Your task to perform on an android device: uninstall "WhatsApp Messenger" Image 0: 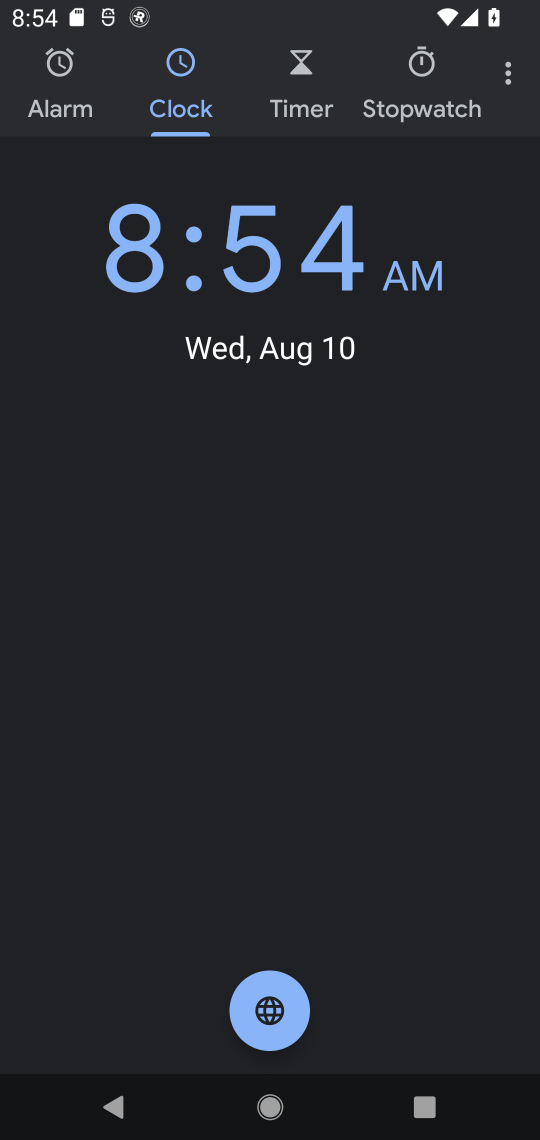
Step 0: press home button
Your task to perform on an android device: uninstall "WhatsApp Messenger" Image 1: 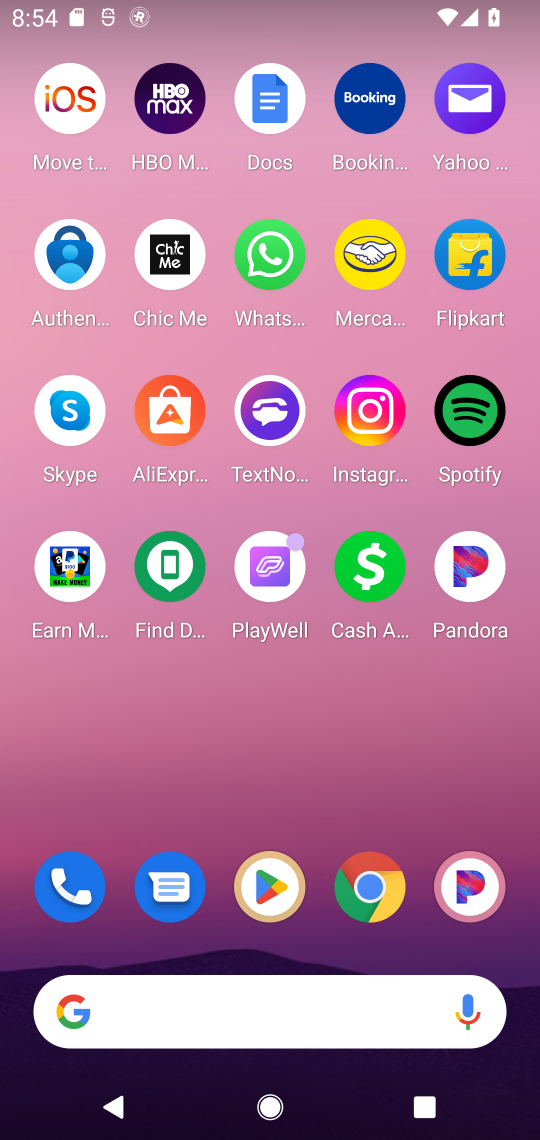
Step 1: click (261, 257)
Your task to perform on an android device: uninstall "WhatsApp Messenger" Image 2: 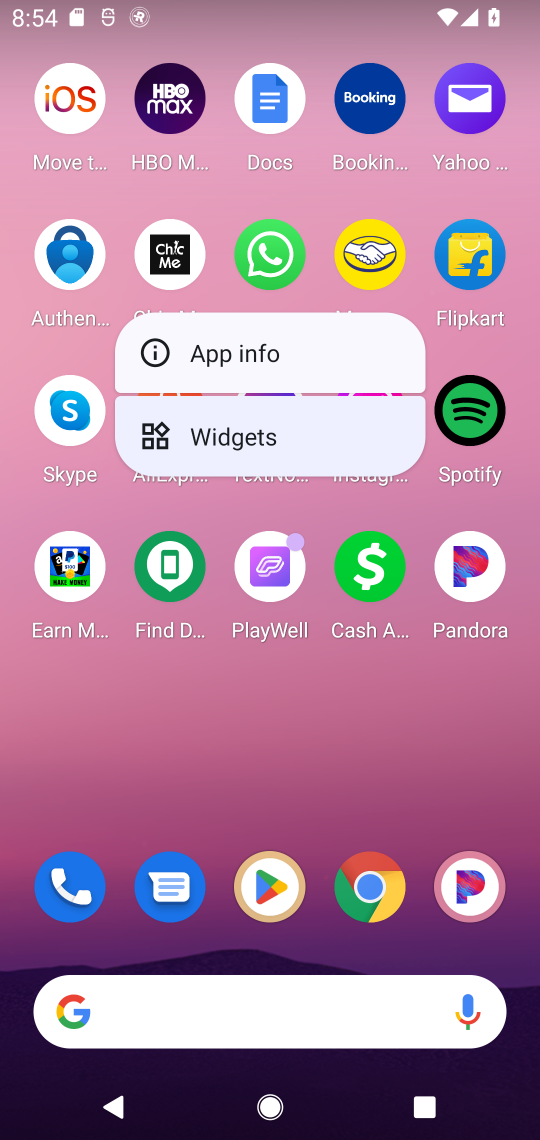
Step 2: click (244, 334)
Your task to perform on an android device: uninstall "WhatsApp Messenger" Image 3: 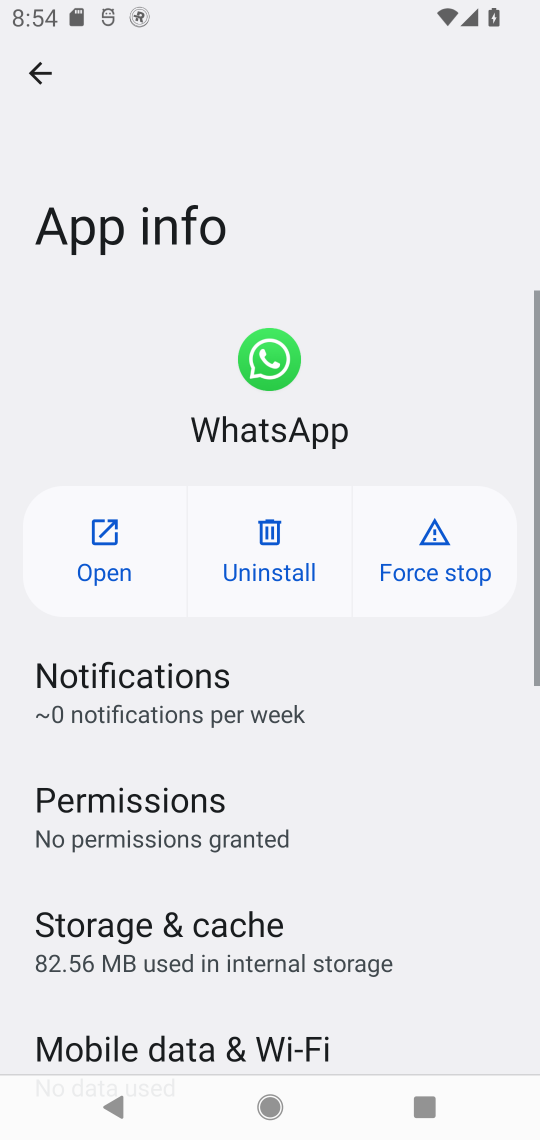
Step 3: click (288, 535)
Your task to perform on an android device: uninstall "WhatsApp Messenger" Image 4: 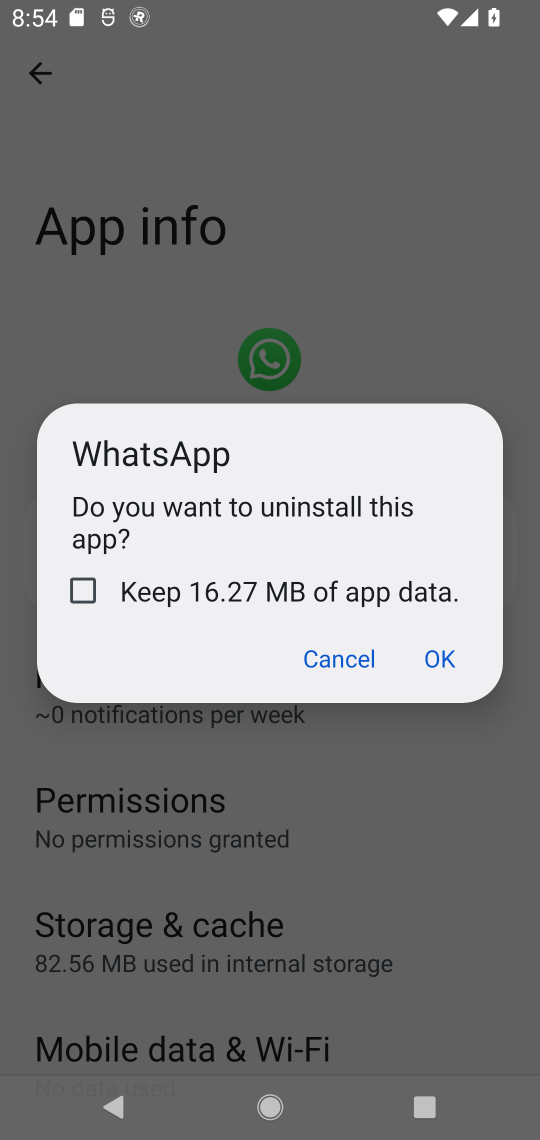
Step 4: click (266, 573)
Your task to perform on an android device: uninstall "WhatsApp Messenger" Image 5: 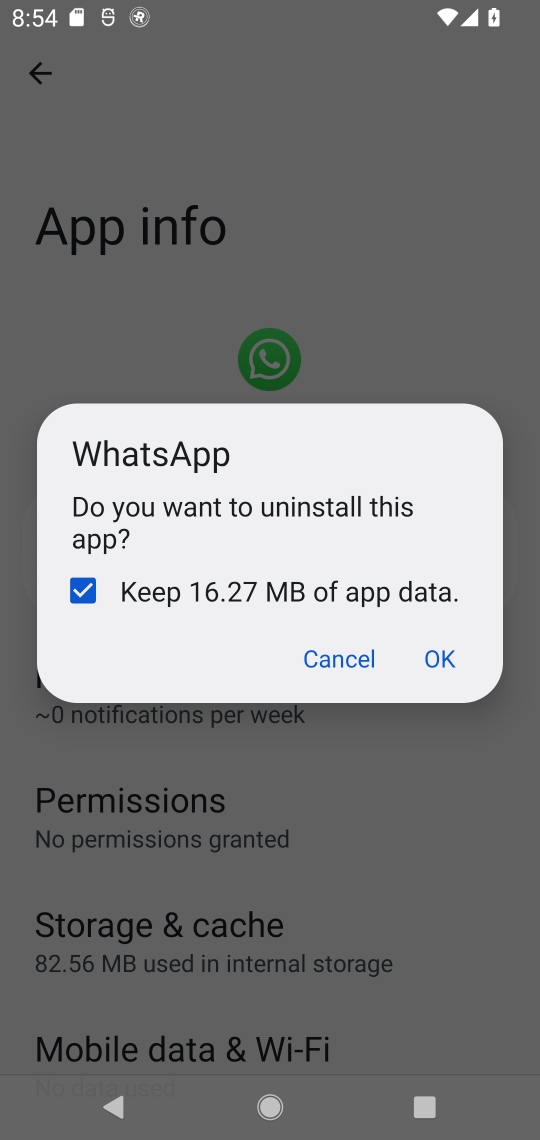
Step 5: click (453, 679)
Your task to perform on an android device: uninstall "WhatsApp Messenger" Image 6: 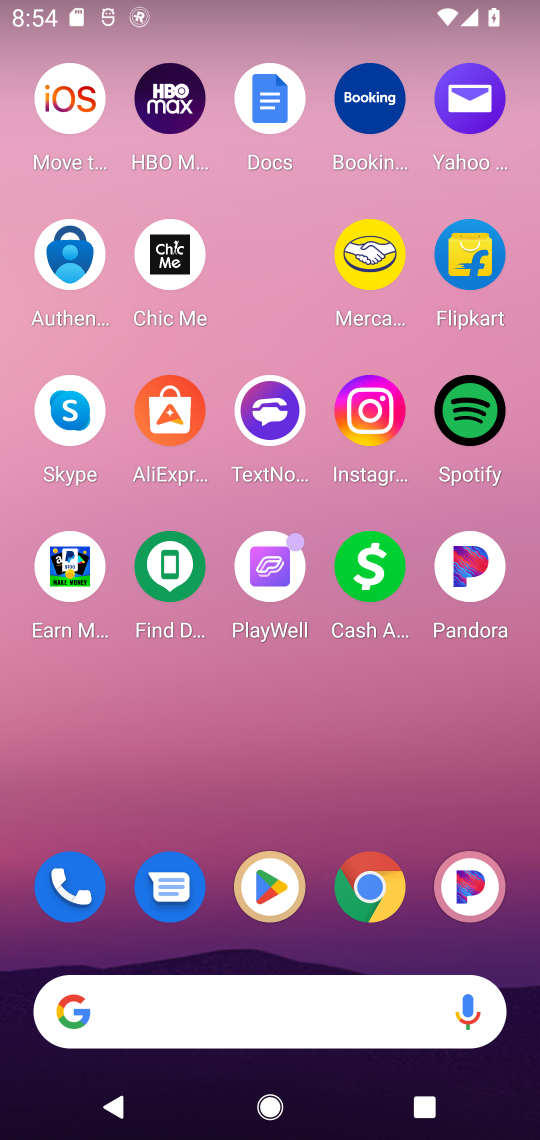
Step 6: click (276, 901)
Your task to perform on an android device: uninstall "WhatsApp Messenger" Image 7: 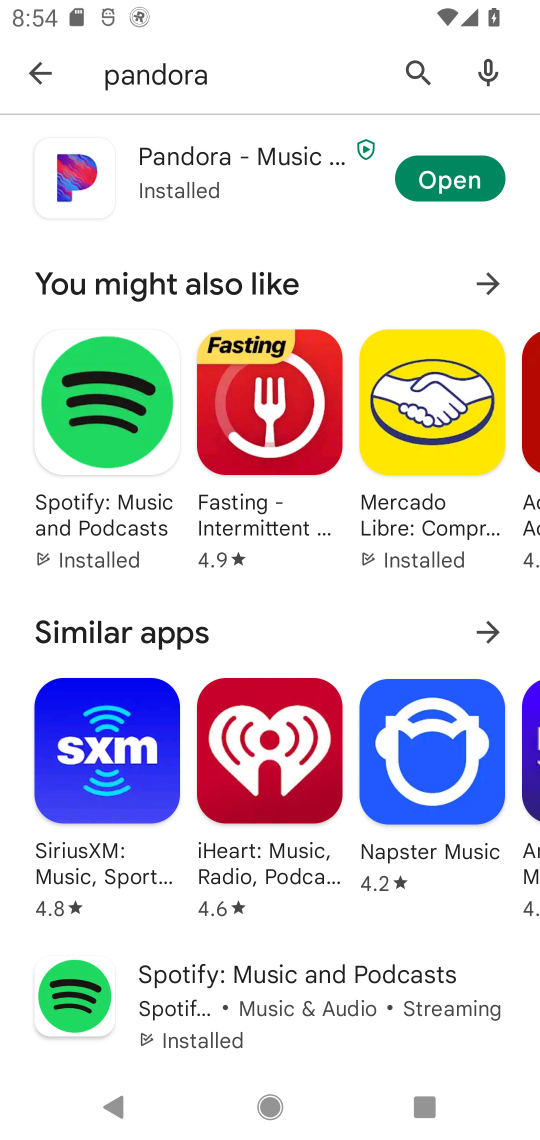
Step 7: press home button
Your task to perform on an android device: uninstall "WhatsApp Messenger" Image 8: 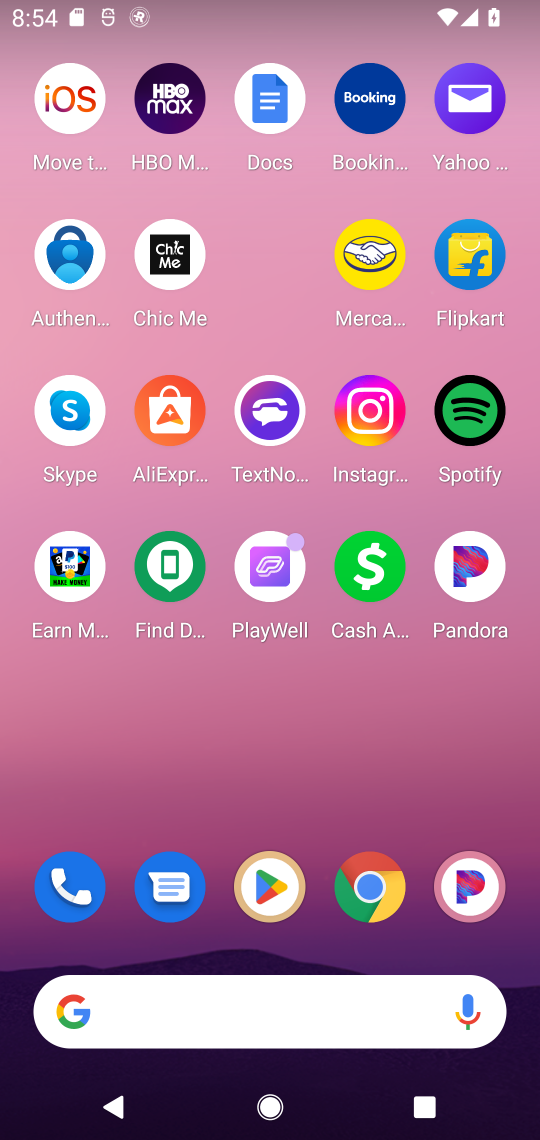
Step 8: drag from (290, 962) to (281, 175)
Your task to perform on an android device: uninstall "WhatsApp Messenger" Image 9: 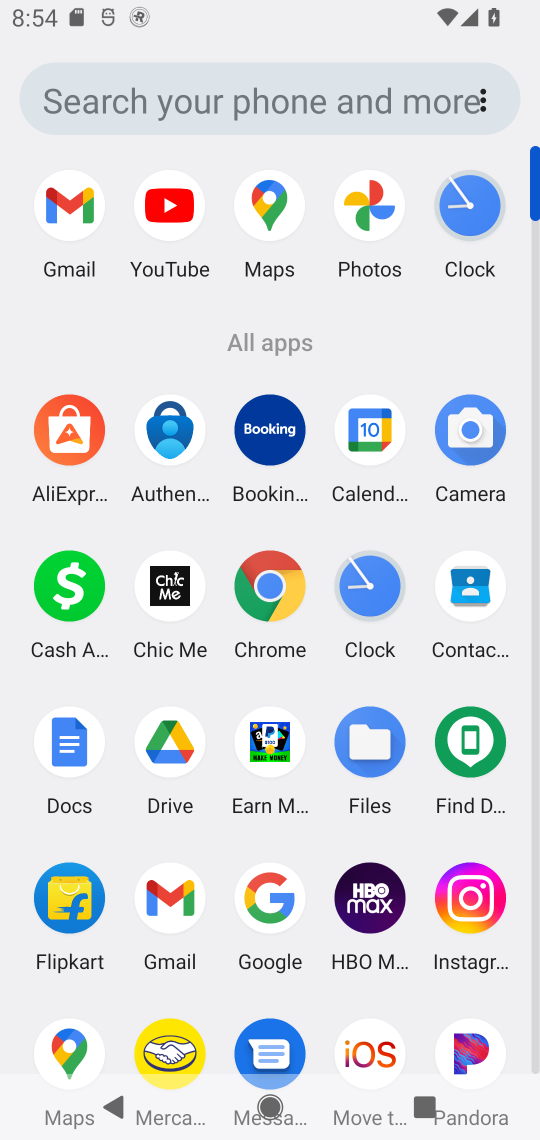
Step 9: click (272, 1102)
Your task to perform on an android device: uninstall "WhatsApp Messenger" Image 10: 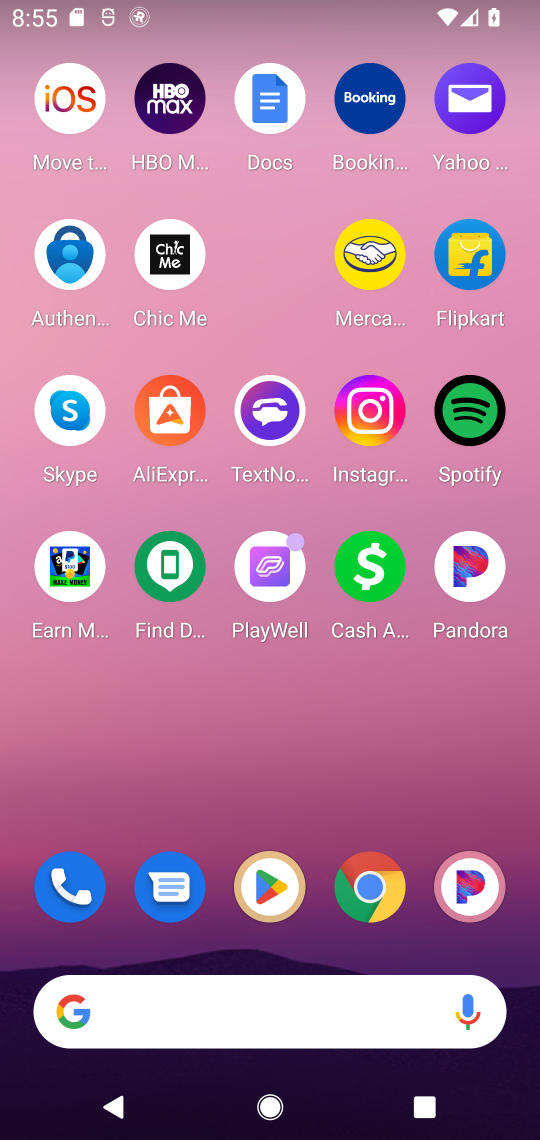
Step 10: drag from (334, 960) to (210, 193)
Your task to perform on an android device: uninstall "WhatsApp Messenger" Image 11: 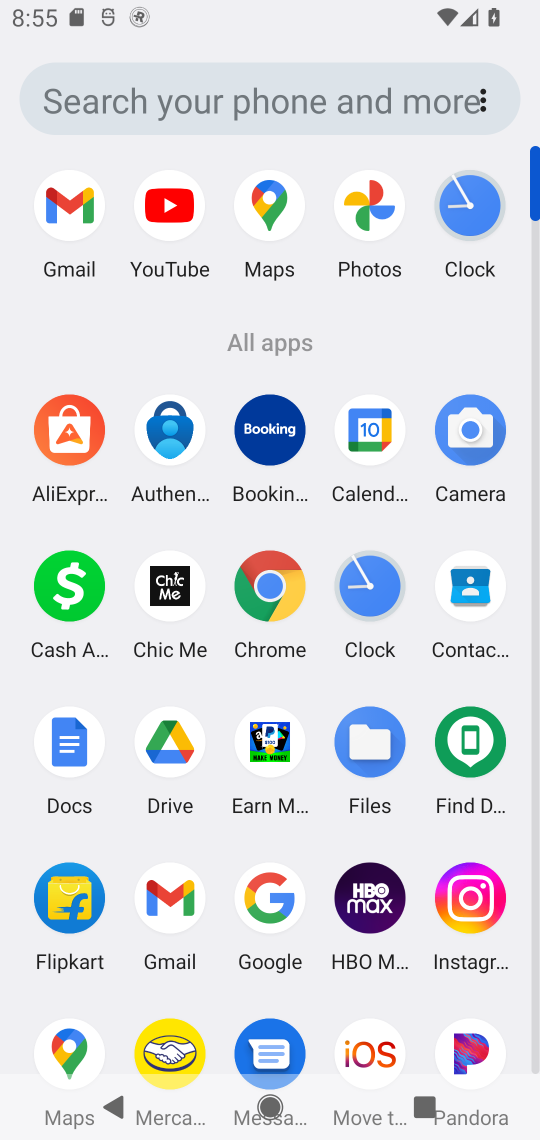
Step 11: click (232, 101)
Your task to perform on an android device: uninstall "WhatsApp Messenger" Image 12: 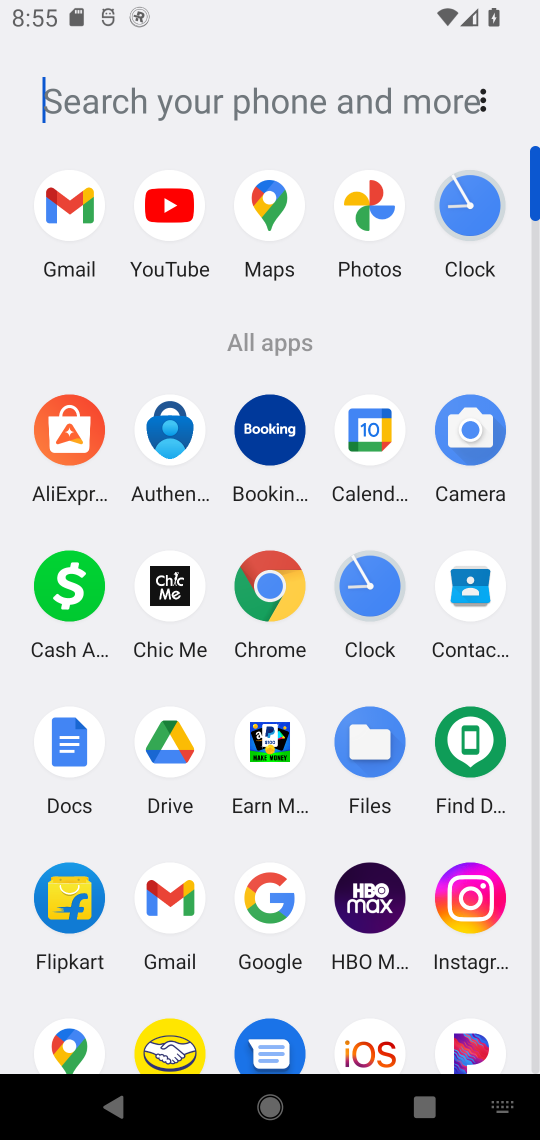
Step 12: click (537, 1053)
Your task to perform on an android device: uninstall "WhatsApp Messenger" Image 13: 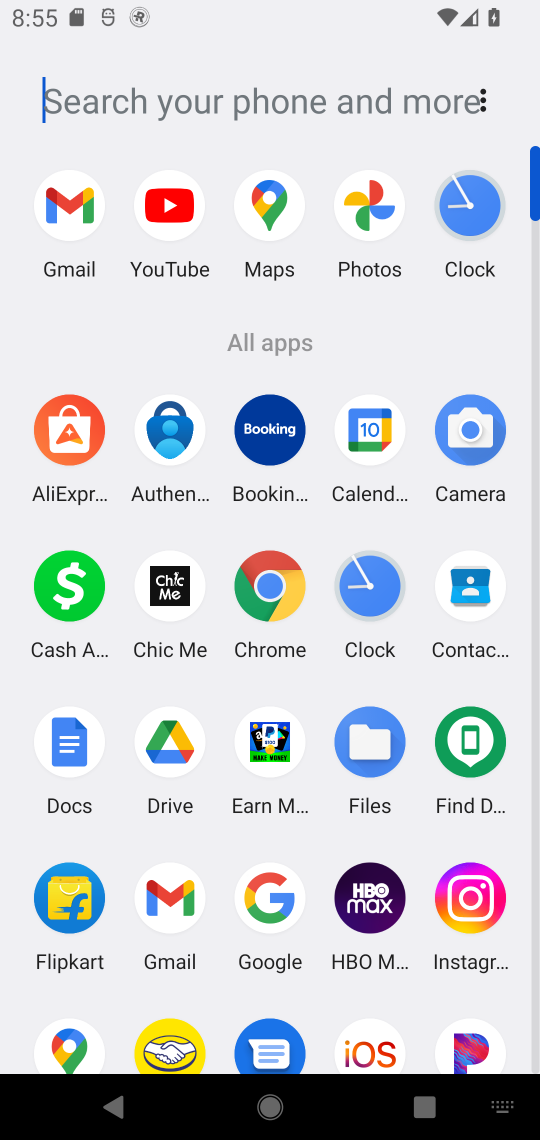
Step 13: click (537, 1053)
Your task to perform on an android device: uninstall "WhatsApp Messenger" Image 14: 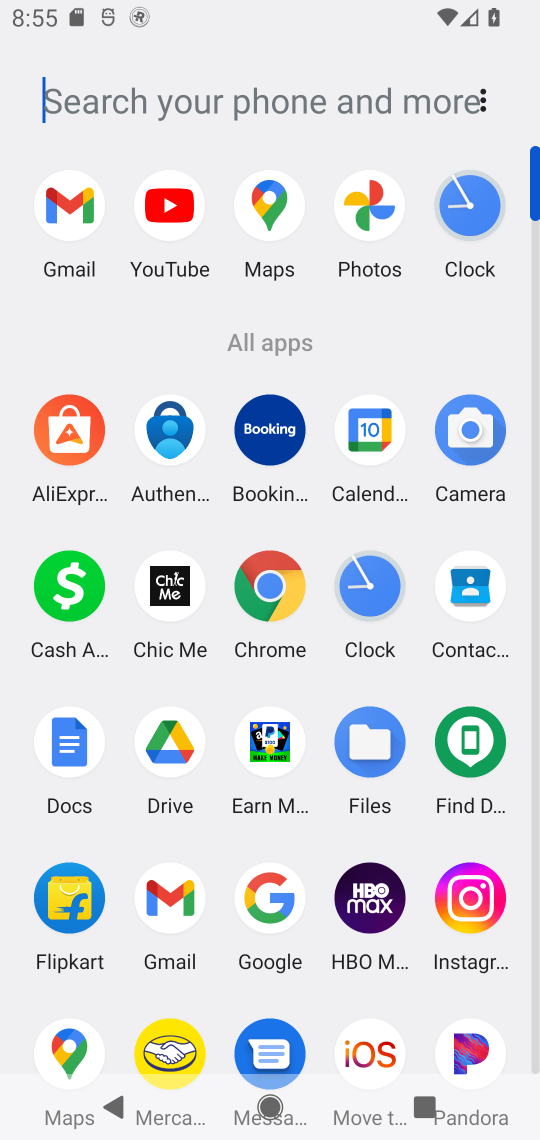
Step 14: click (537, 1053)
Your task to perform on an android device: uninstall "WhatsApp Messenger" Image 15: 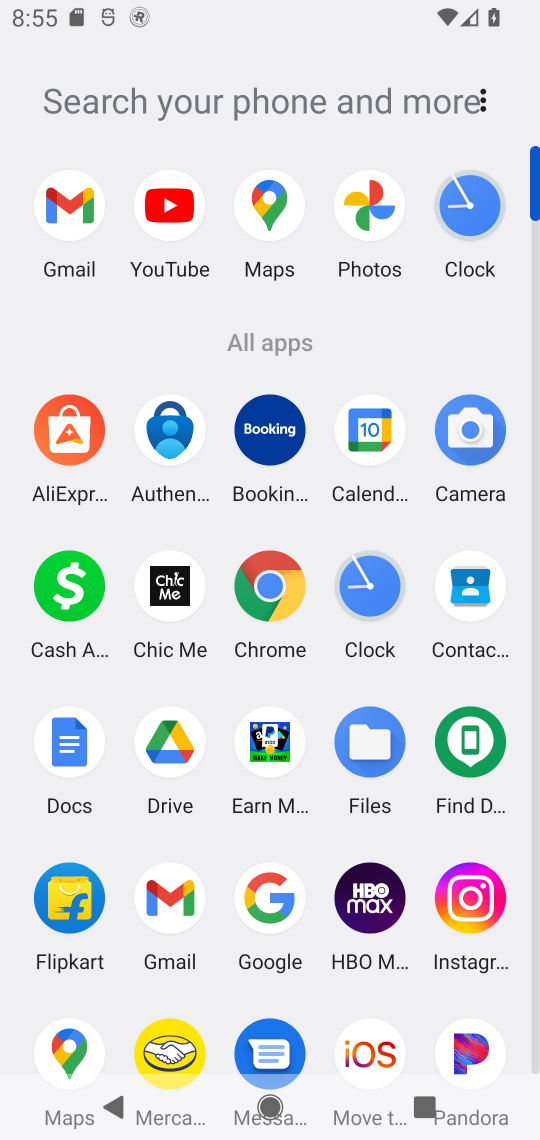
Step 15: task complete